Your task to perform on an android device: Clear all items from cart on ebay. Search for acer predator on ebay, select the first entry, and add it to the cart. Image 0: 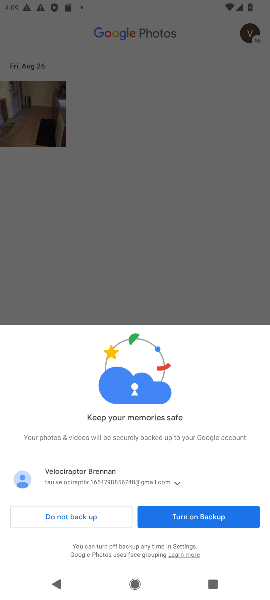
Step 0: press home button
Your task to perform on an android device: Clear all items from cart on ebay. Search for acer predator on ebay, select the first entry, and add it to the cart. Image 1: 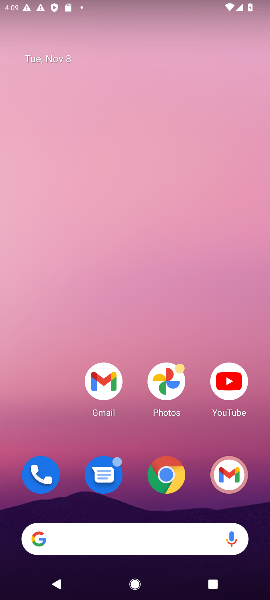
Step 1: drag from (136, 514) to (143, 115)
Your task to perform on an android device: Clear all items from cart on ebay. Search for acer predator on ebay, select the first entry, and add it to the cart. Image 2: 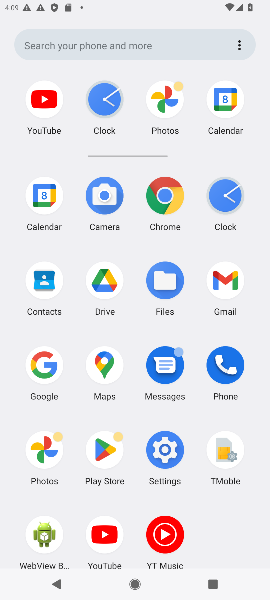
Step 2: click (40, 361)
Your task to perform on an android device: Clear all items from cart on ebay. Search for acer predator on ebay, select the first entry, and add it to the cart. Image 3: 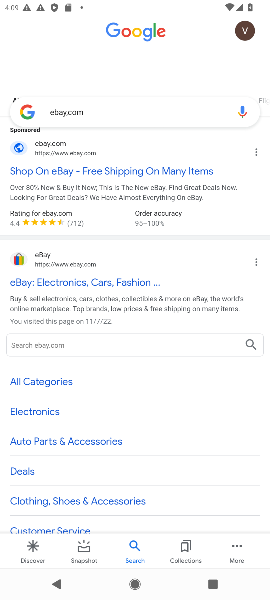
Step 3: click (86, 108)
Your task to perform on an android device: Clear all items from cart on ebay. Search for acer predator on ebay, select the first entry, and add it to the cart. Image 4: 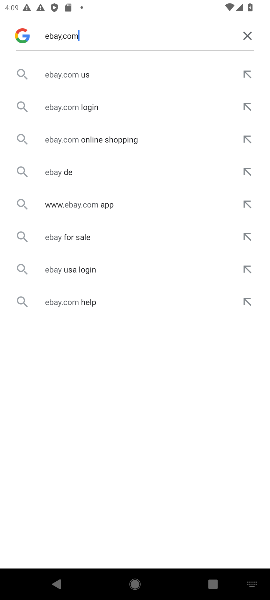
Step 4: click (246, 32)
Your task to perform on an android device: Clear all items from cart on ebay. Search for acer predator on ebay, select the first entry, and add it to the cart. Image 5: 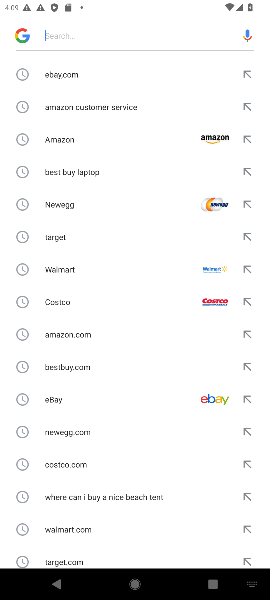
Step 5: click (87, 32)
Your task to perform on an android device: Clear all items from cart on ebay. Search for acer predator on ebay, select the first entry, and add it to the cart. Image 6: 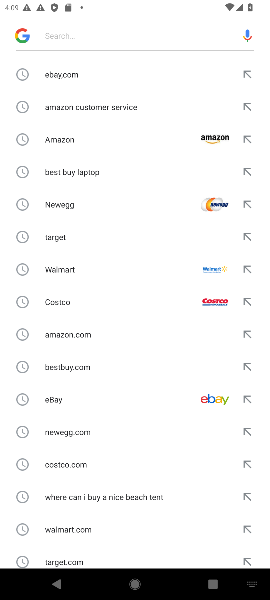
Step 6: type "ebay "
Your task to perform on an android device: Clear all items from cart on ebay. Search for acer predator on ebay, select the first entry, and add it to the cart. Image 7: 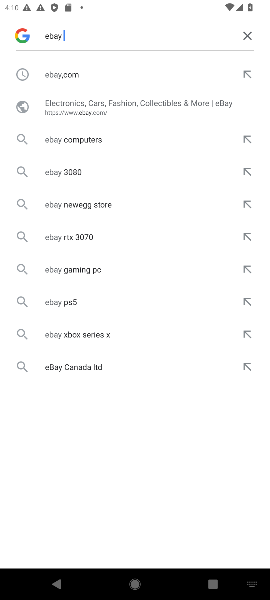
Step 7: click (63, 77)
Your task to perform on an android device: Clear all items from cart on ebay. Search for acer predator on ebay, select the first entry, and add it to the cart. Image 8: 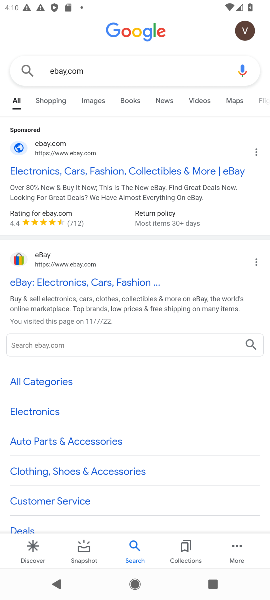
Step 8: click (12, 259)
Your task to perform on an android device: Clear all items from cart on ebay. Search for acer predator on ebay, select the first entry, and add it to the cart. Image 9: 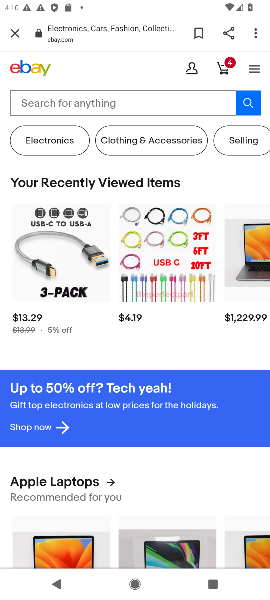
Step 9: click (114, 98)
Your task to perform on an android device: Clear all items from cart on ebay. Search for acer predator on ebay, select the first entry, and add it to the cart. Image 10: 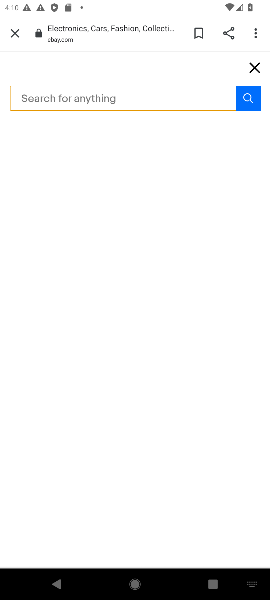
Step 10: type " acer predator  "
Your task to perform on an android device: Clear all items from cart on ebay. Search for acer predator on ebay, select the first entry, and add it to the cart. Image 11: 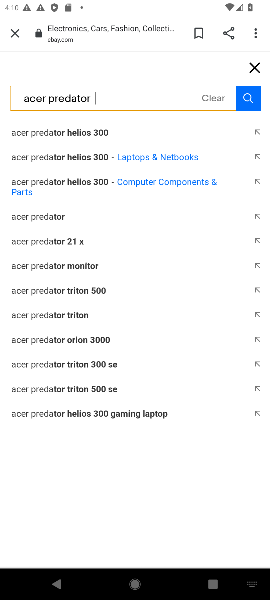
Step 11: click (44, 217)
Your task to perform on an android device: Clear all items from cart on ebay. Search for acer predator on ebay, select the first entry, and add it to the cart. Image 12: 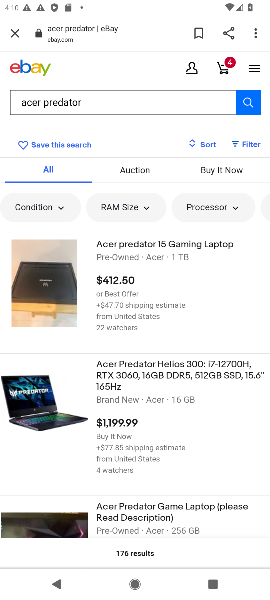
Step 12: click (184, 376)
Your task to perform on an android device: Clear all items from cart on ebay. Search for acer predator on ebay, select the first entry, and add it to the cart. Image 13: 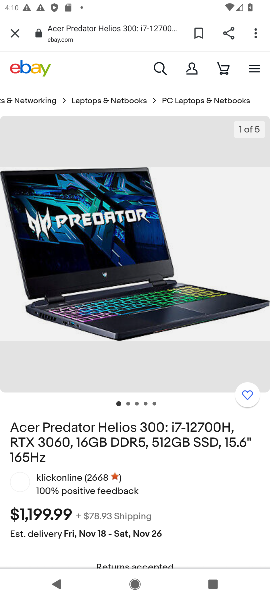
Step 13: drag from (142, 473) to (143, 104)
Your task to perform on an android device: Clear all items from cart on ebay. Search for acer predator on ebay, select the first entry, and add it to the cart. Image 14: 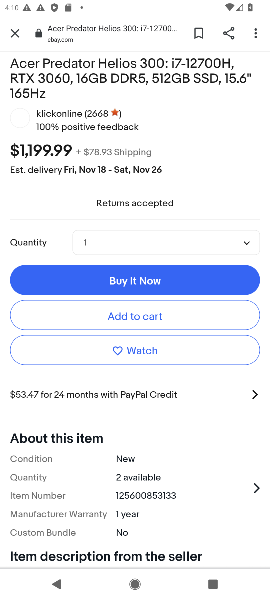
Step 14: click (133, 310)
Your task to perform on an android device: Clear all items from cart on ebay. Search for acer predator on ebay, select the first entry, and add it to the cart. Image 15: 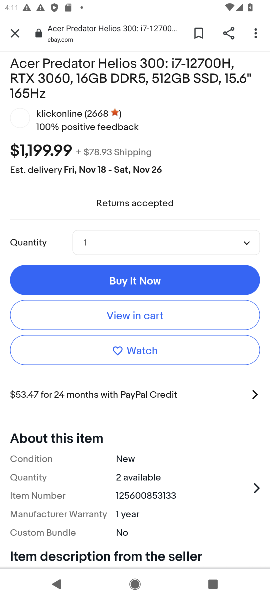
Step 15: click (130, 308)
Your task to perform on an android device: Clear all items from cart on ebay. Search for acer predator on ebay, select the first entry, and add it to the cart. Image 16: 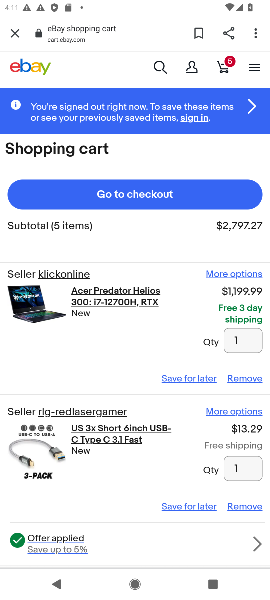
Step 16: task complete